Your task to perform on an android device: Search for seafood restaurants on Google Maps Image 0: 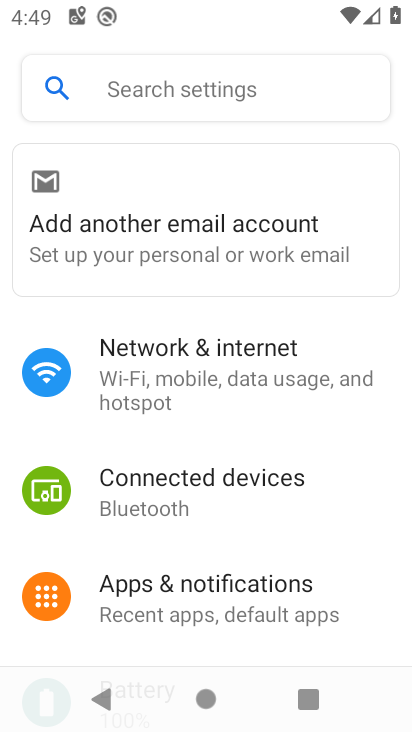
Step 0: press home button
Your task to perform on an android device: Search for seafood restaurants on Google Maps Image 1: 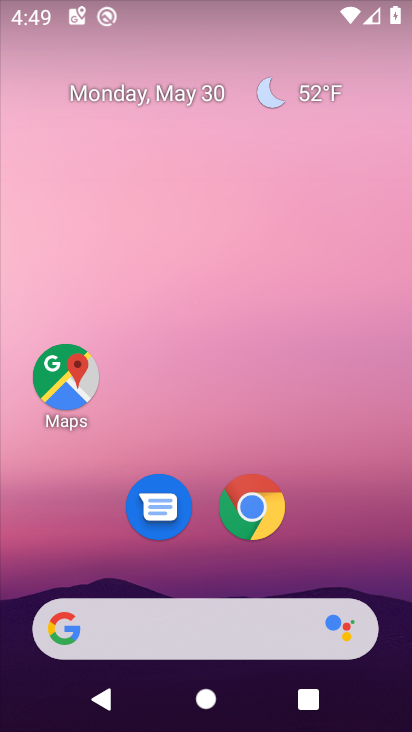
Step 1: click (51, 377)
Your task to perform on an android device: Search for seafood restaurants on Google Maps Image 2: 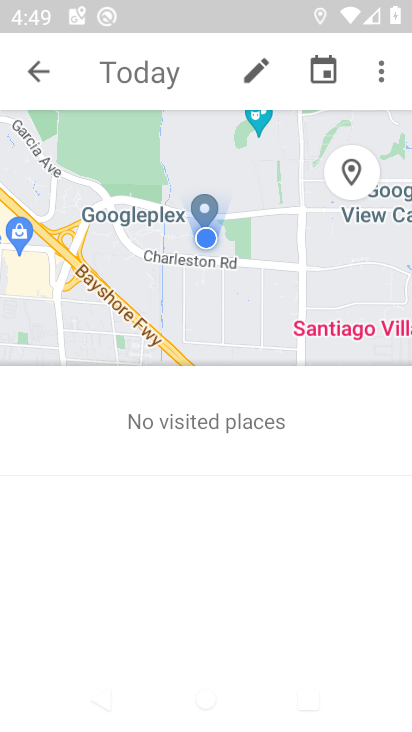
Step 2: click (31, 91)
Your task to perform on an android device: Search for seafood restaurants on Google Maps Image 3: 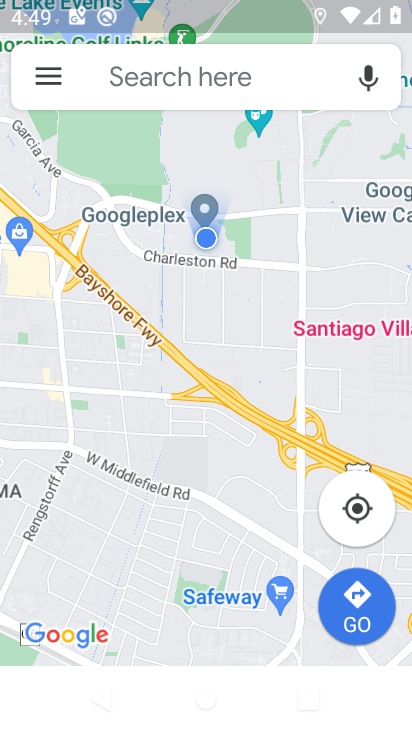
Step 3: click (161, 63)
Your task to perform on an android device: Search for seafood restaurants on Google Maps Image 4: 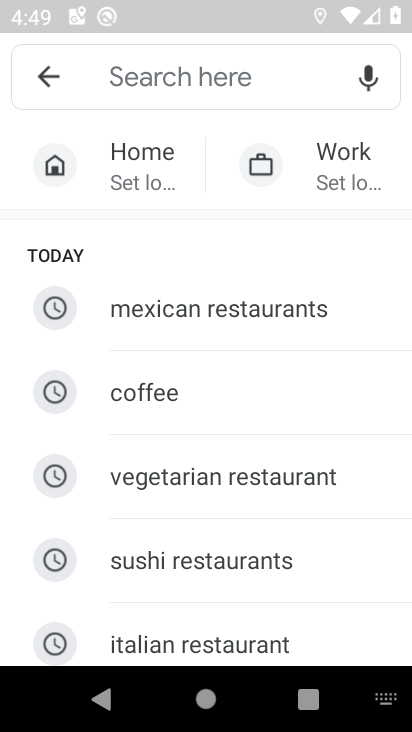
Step 4: type "seafood restaurants"
Your task to perform on an android device: Search for seafood restaurants on Google Maps Image 5: 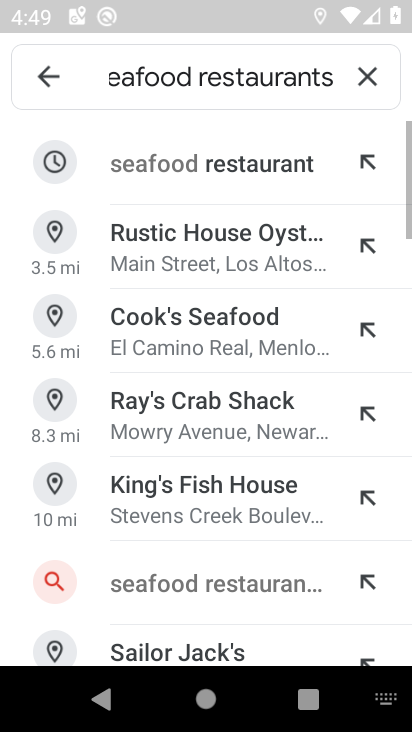
Step 5: click (174, 157)
Your task to perform on an android device: Search for seafood restaurants on Google Maps Image 6: 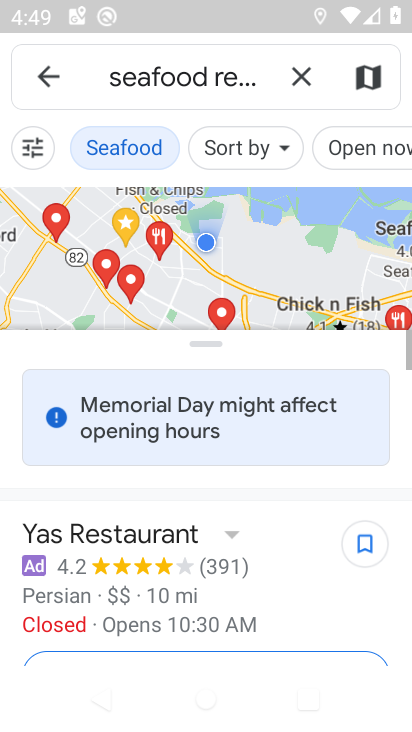
Step 6: task complete